Your task to perform on an android device: open app "Microsoft Outlook" (install if not already installed) and go to login screen Image 0: 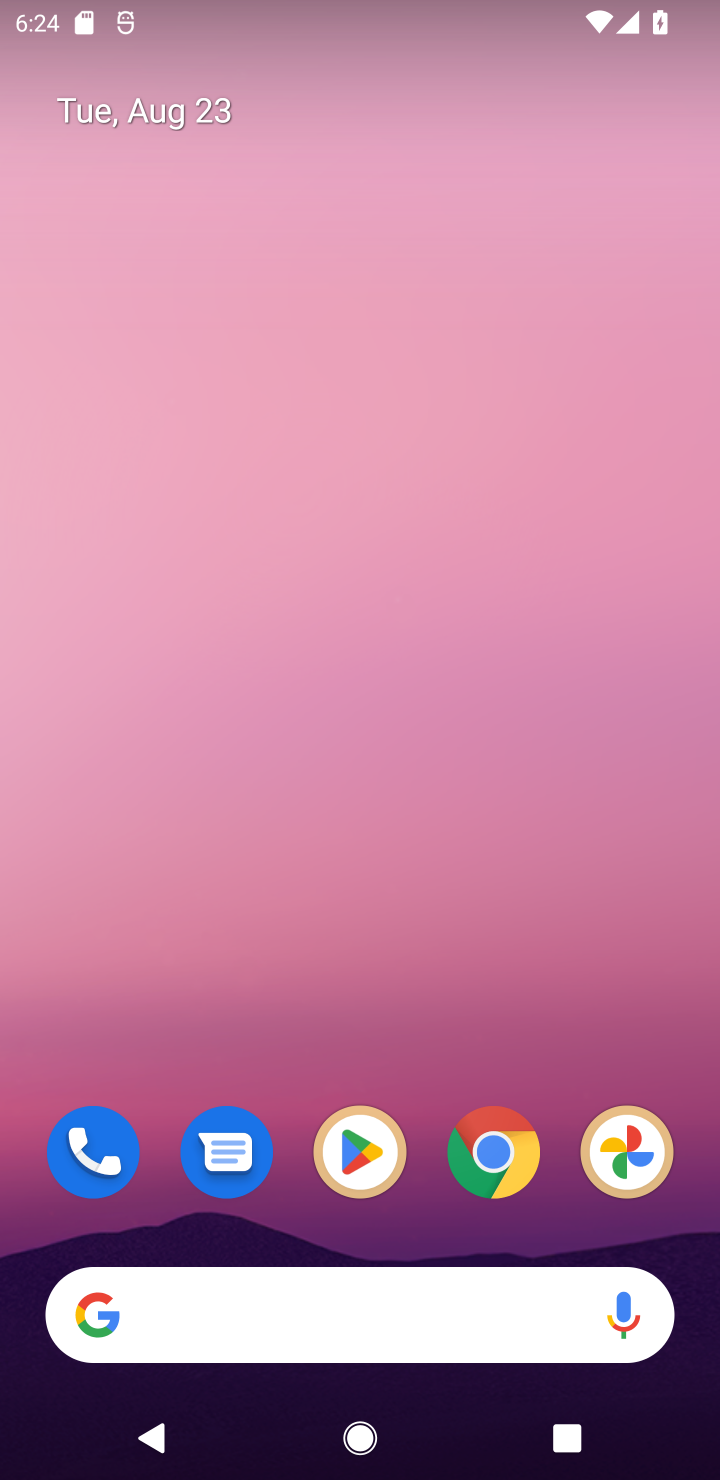
Step 0: click (353, 1159)
Your task to perform on an android device: open app "Microsoft Outlook" (install if not already installed) and go to login screen Image 1: 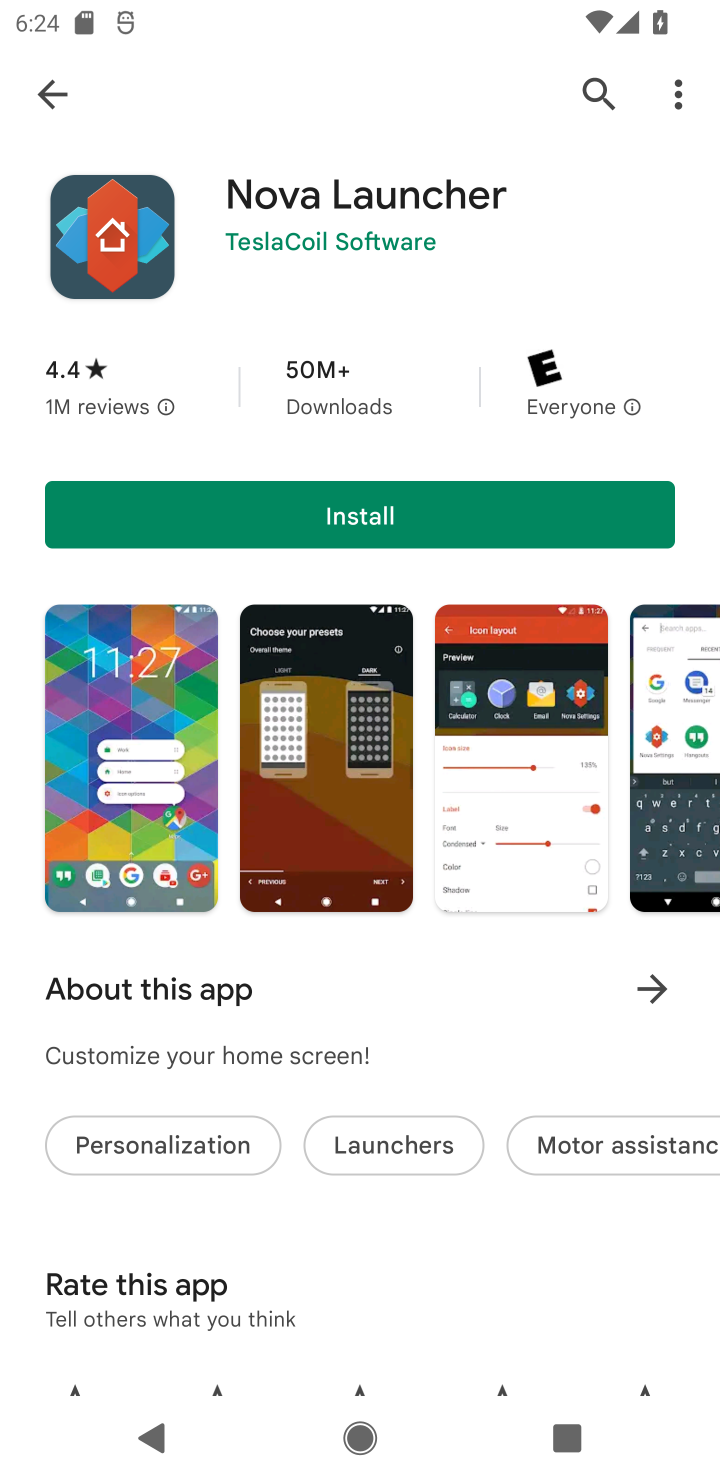
Step 1: click (585, 75)
Your task to perform on an android device: open app "Microsoft Outlook" (install if not already installed) and go to login screen Image 2: 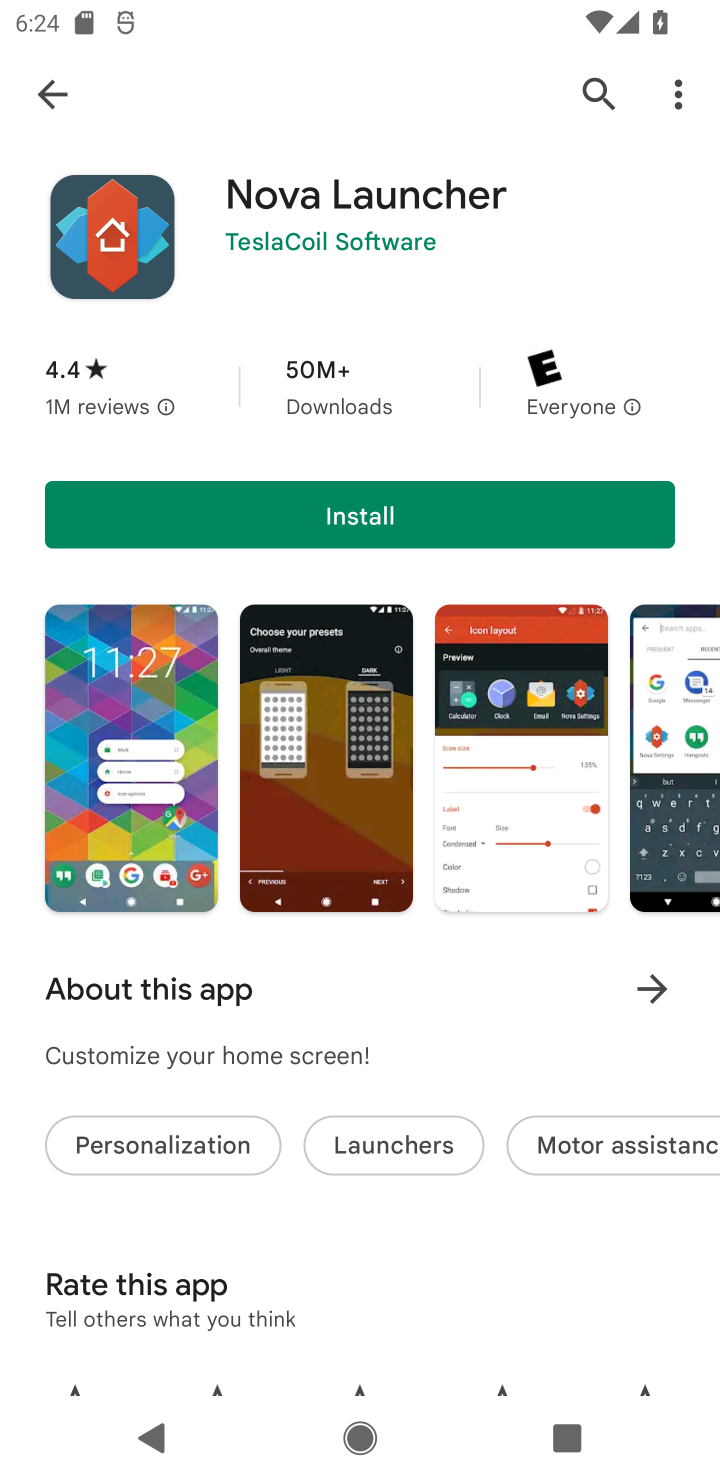
Step 2: click (588, 84)
Your task to perform on an android device: open app "Microsoft Outlook" (install if not already installed) and go to login screen Image 3: 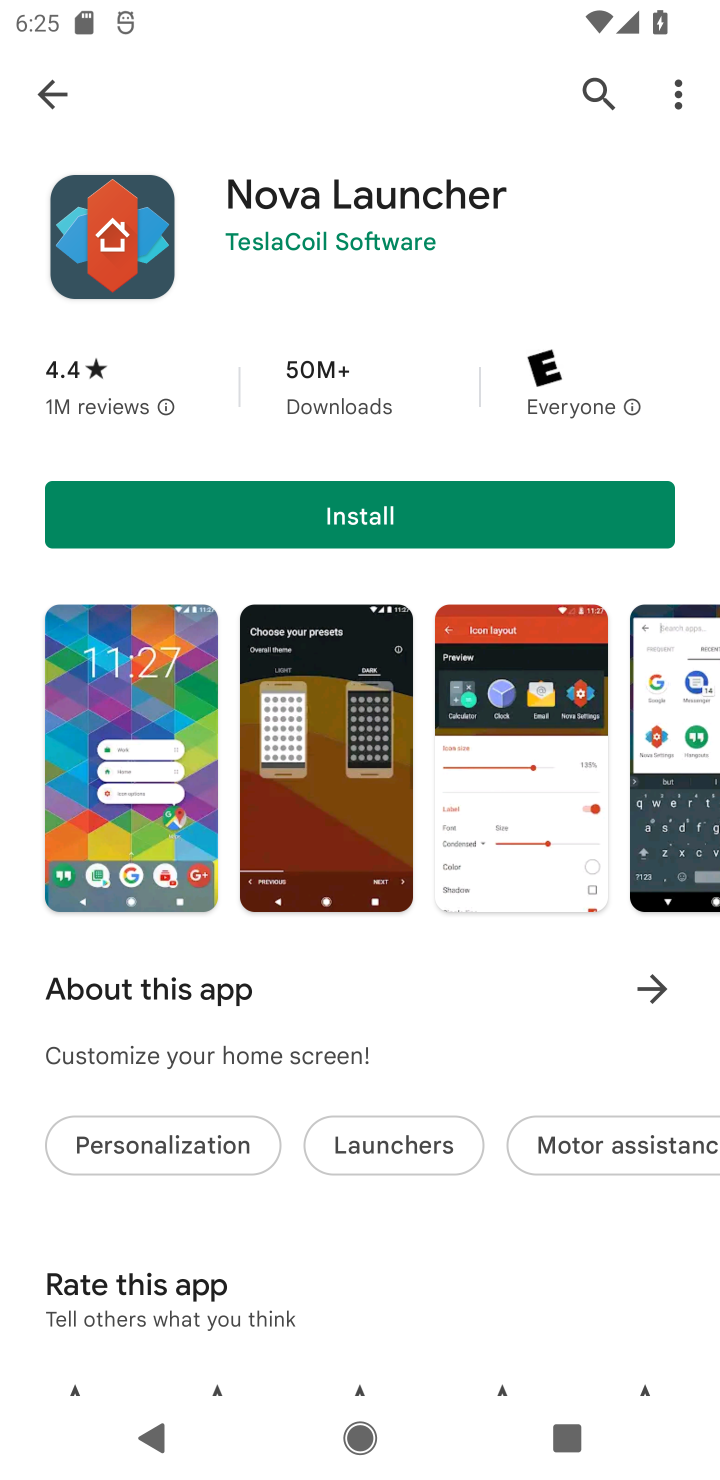
Step 3: click (589, 88)
Your task to perform on an android device: open app "Microsoft Outlook" (install if not already installed) and go to login screen Image 4: 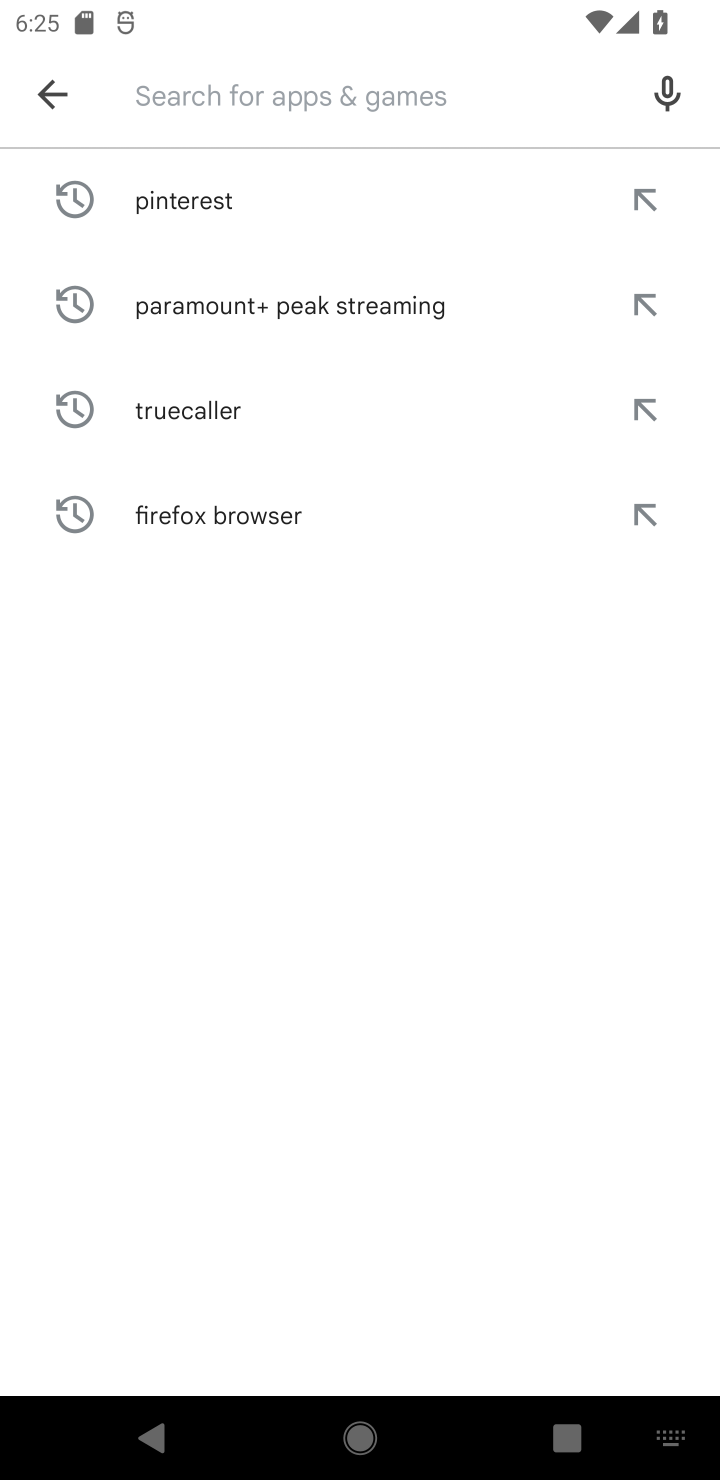
Step 4: click (259, 103)
Your task to perform on an android device: open app "Microsoft Outlook" (install if not already installed) and go to login screen Image 5: 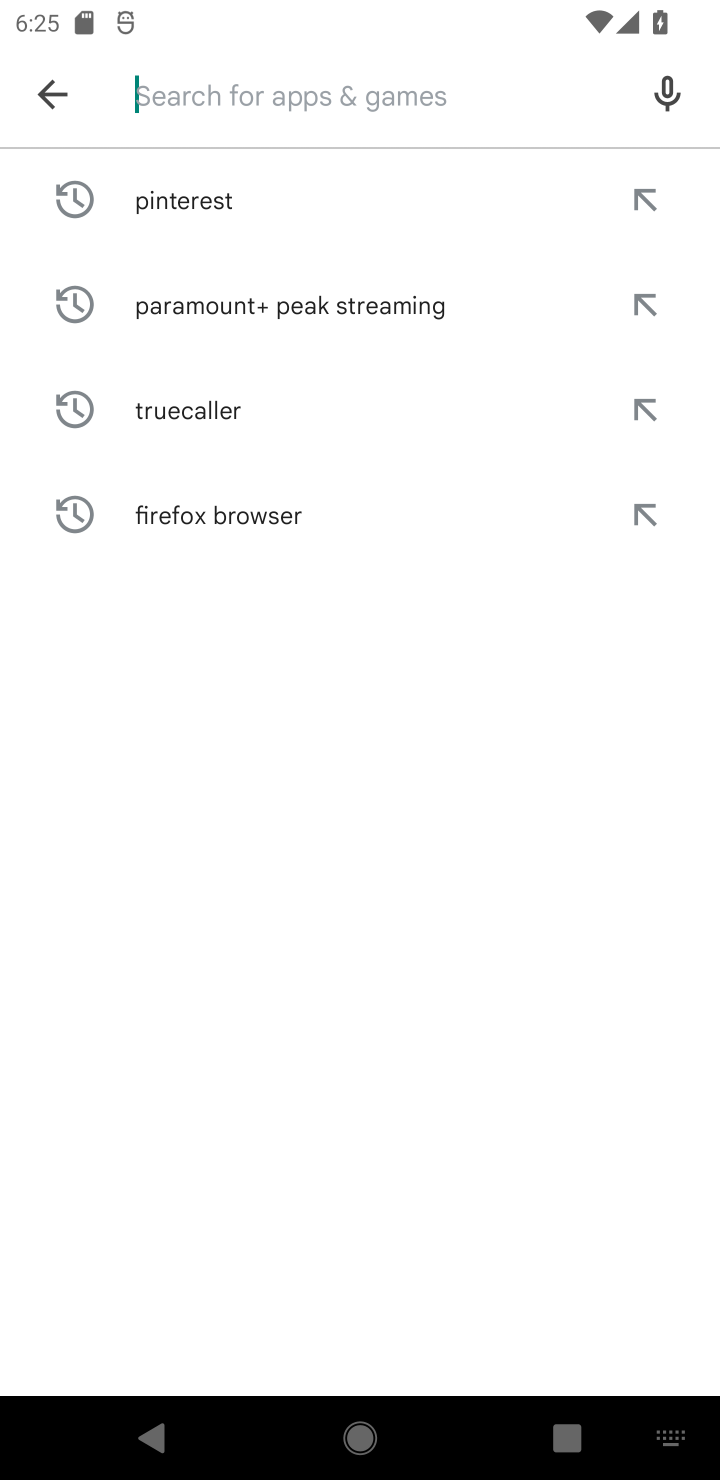
Step 5: type "Microsoft Outlook"
Your task to perform on an android device: open app "Microsoft Outlook" (install if not already installed) and go to login screen Image 6: 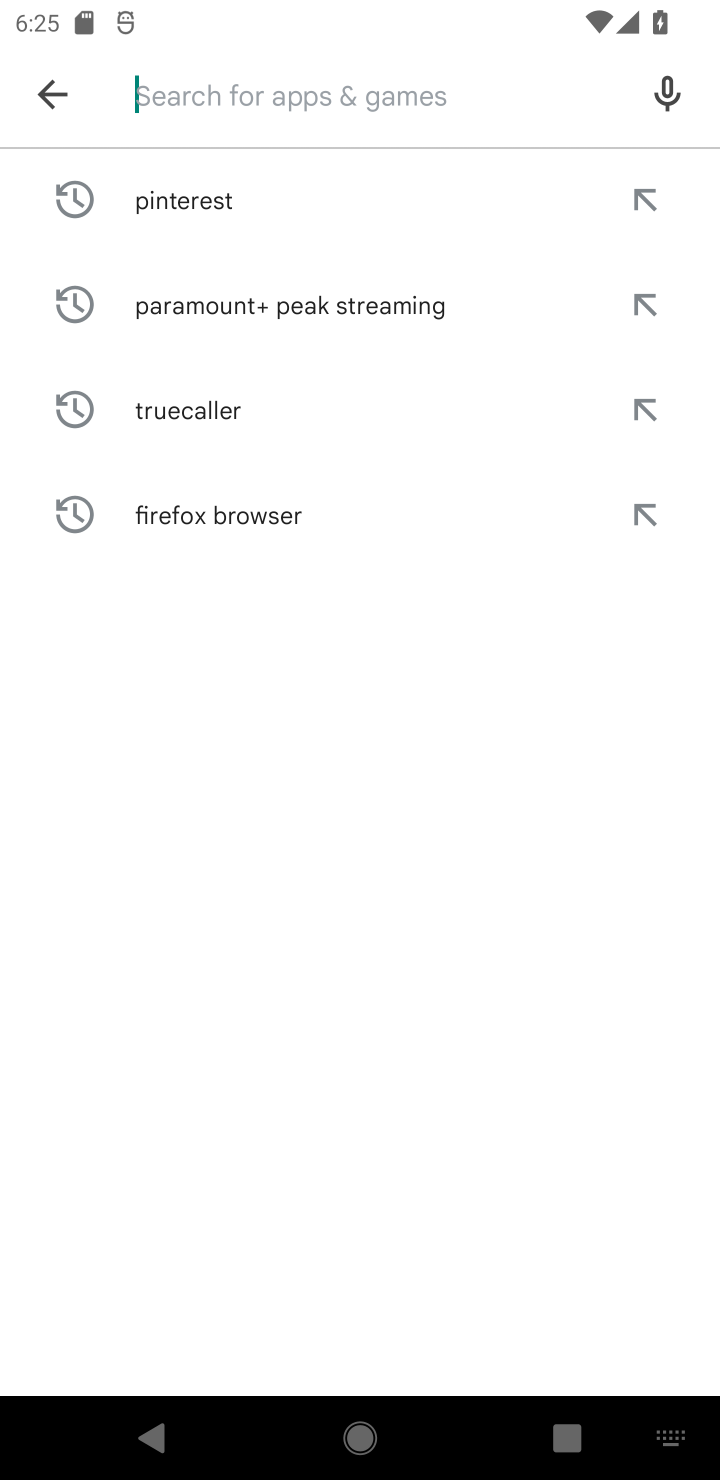
Step 6: click (505, 1009)
Your task to perform on an android device: open app "Microsoft Outlook" (install if not already installed) and go to login screen Image 7: 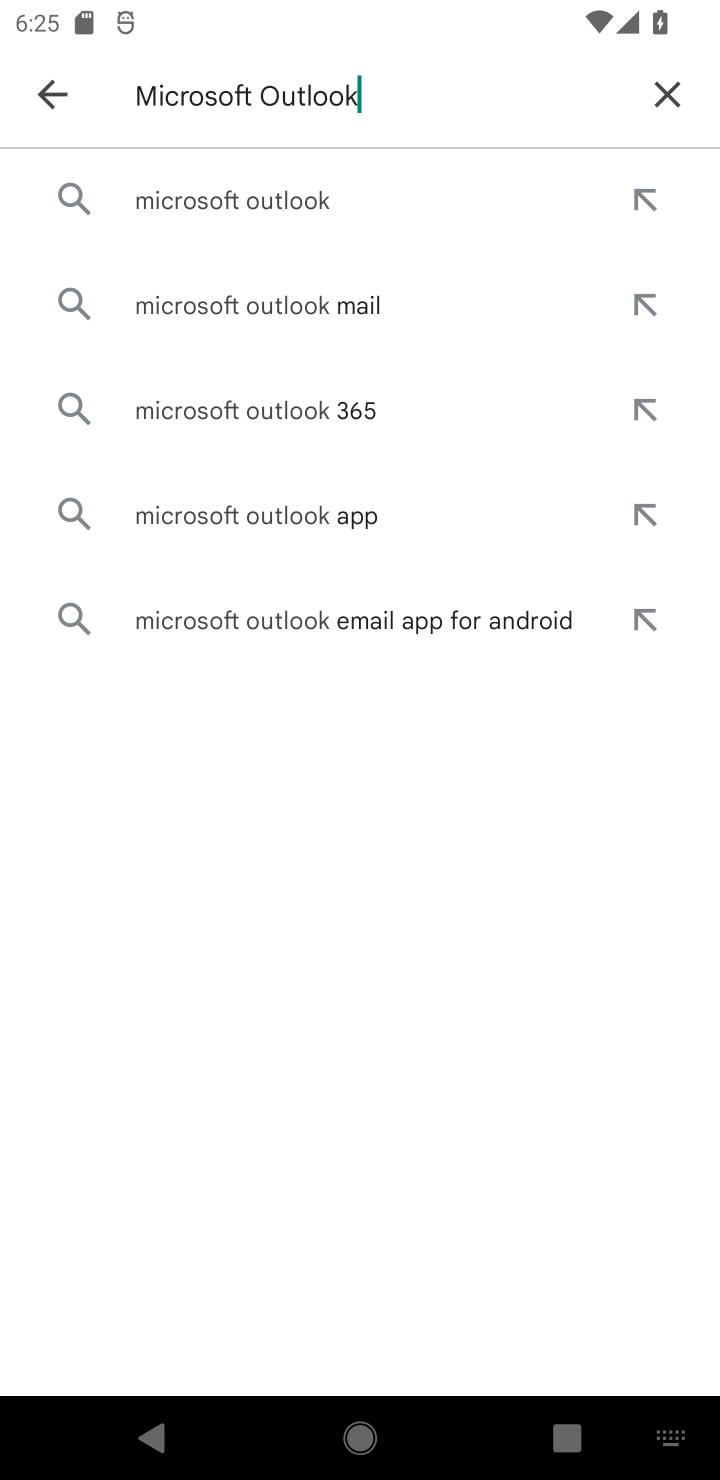
Step 7: click (250, 183)
Your task to perform on an android device: open app "Microsoft Outlook" (install if not already installed) and go to login screen Image 8: 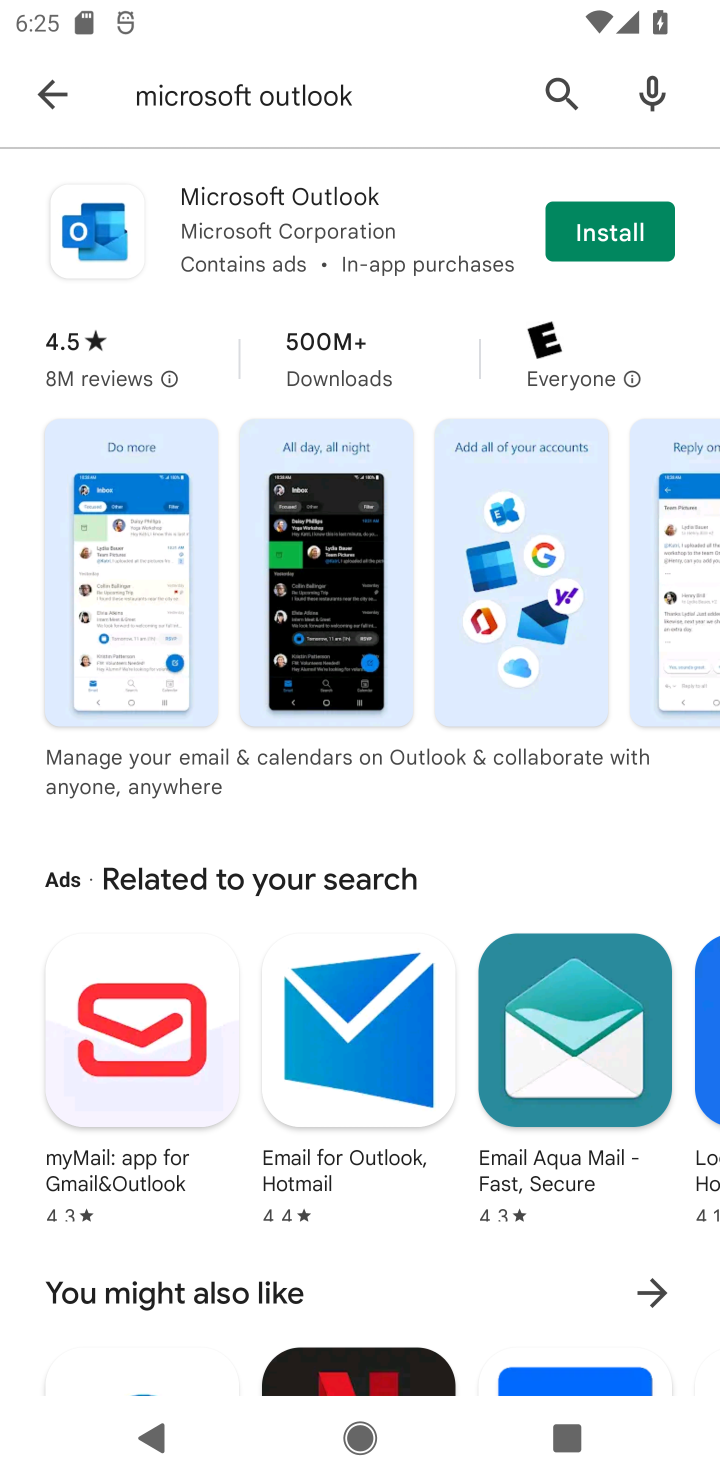
Step 8: click (626, 234)
Your task to perform on an android device: open app "Microsoft Outlook" (install if not already installed) and go to login screen Image 9: 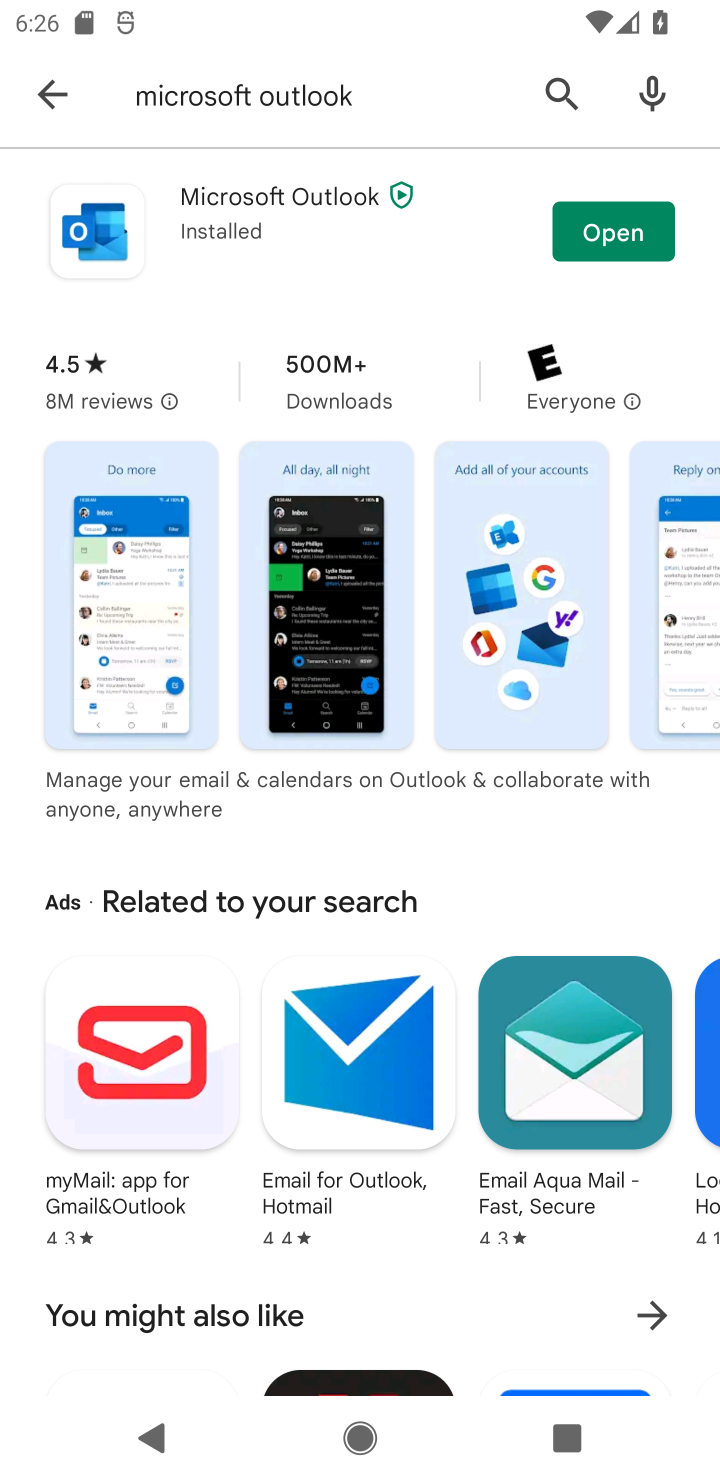
Step 9: click (611, 238)
Your task to perform on an android device: open app "Microsoft Outlook" (install if not already installed) and go to login screen Image 10: 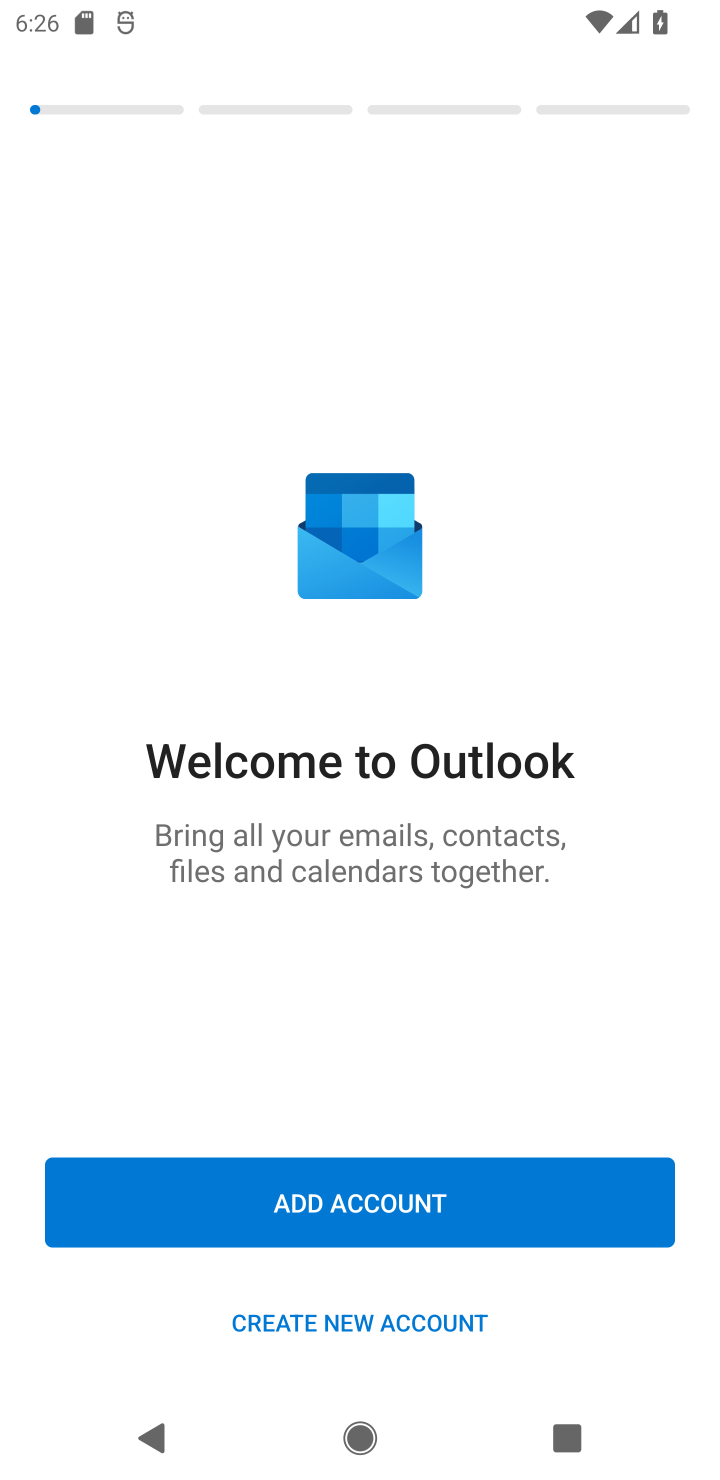
Step 10: task complete